Your task to perform on an android device: Open calendar and show me the fourth week of next month Image 0: 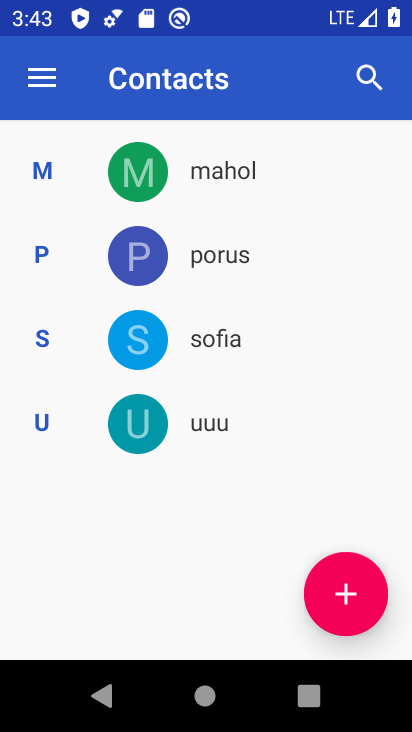
Step 0: press home button
Your task to perform on an android device: Open calendar and show me the fourth week of next month Image 1: 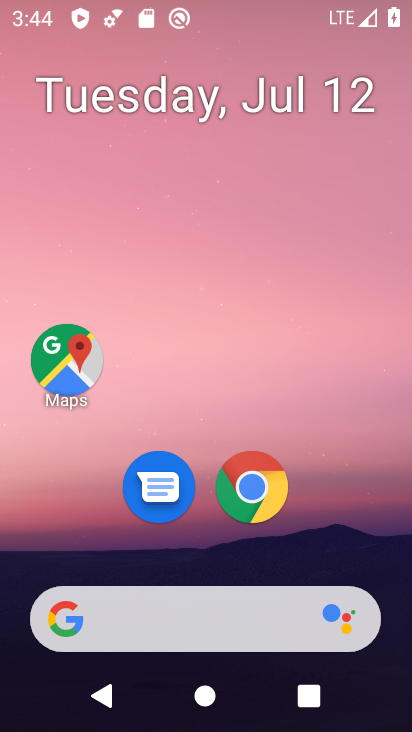
Step 1: drag from (187, 587) to (255, 75)
Your task to perform on an android device: Open calendar and show me the fourth week of next month Image 2: 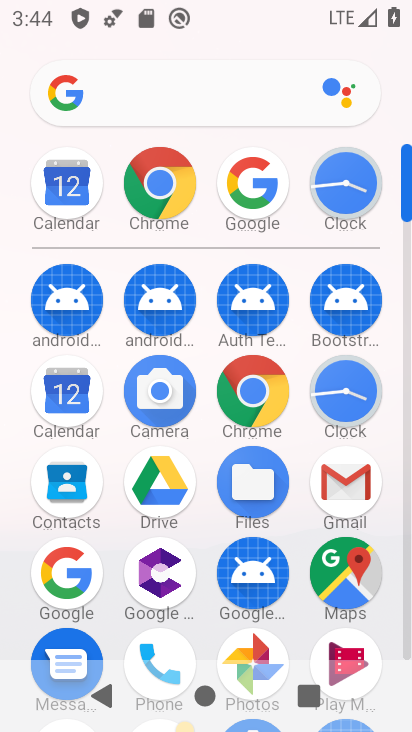
Step 2: drag from (246, 470) to (278, 223)
Your task to perform on an android device: Open calendar and show me the fourth week of next month Image 3: 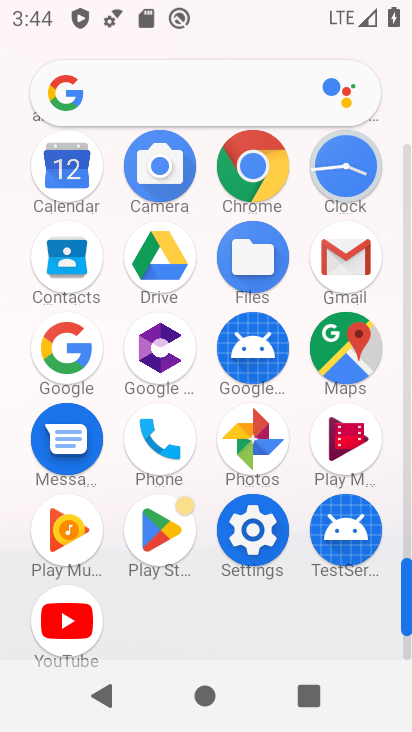
Step 3: click (67, 180)
Your task to perform on an android device: Open calendar and show me the fourth week of next month Image 4: 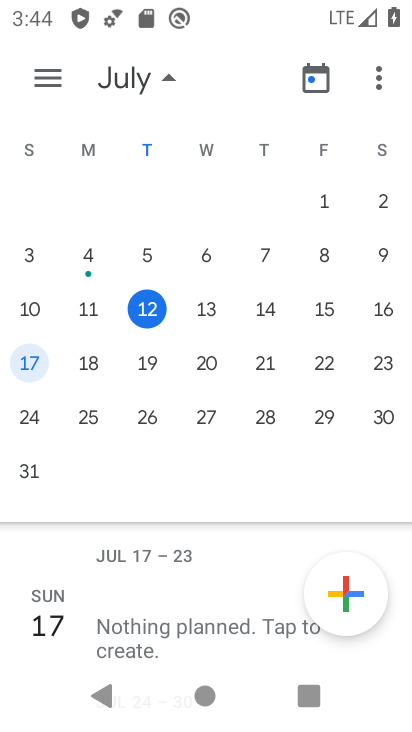
Step 4: drag from (309, 384) to (15, 502)
Your task to perform on an android device: Open calendar and show me the fourth week of next month Image 5: 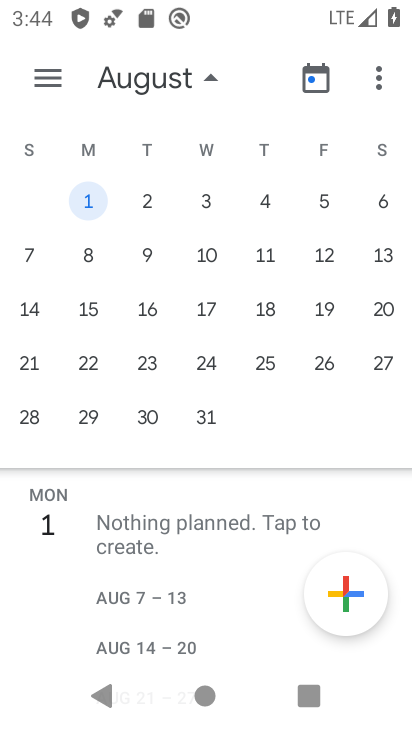
Step 5: click (31, 370)
Your task to perform on an android device: Open calendar and show me the fourth week of next month Image 6: 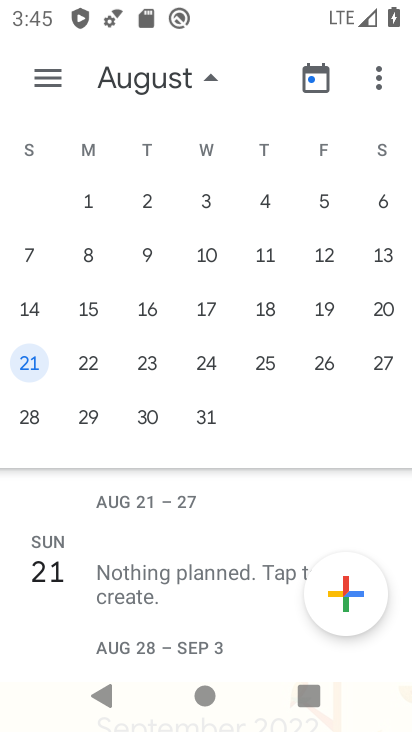
Step 6: click (19, 366)
Your task to perform on an android device: Open calendar and show me the fourth week of next month Image 7: 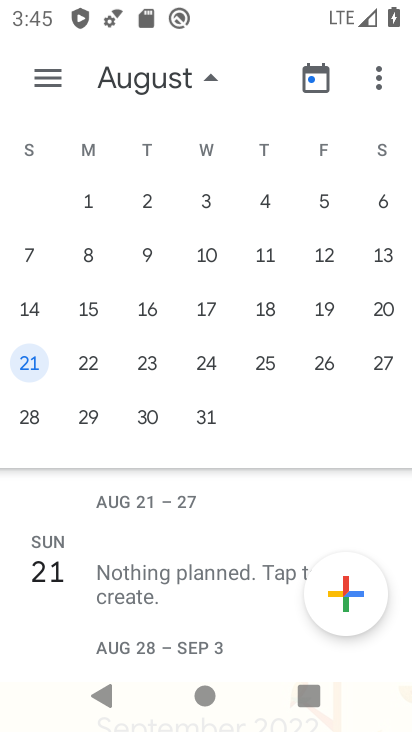
Step 7: task complete